Your task to perform on an android device: Do I have any events this weekend? Image 0: 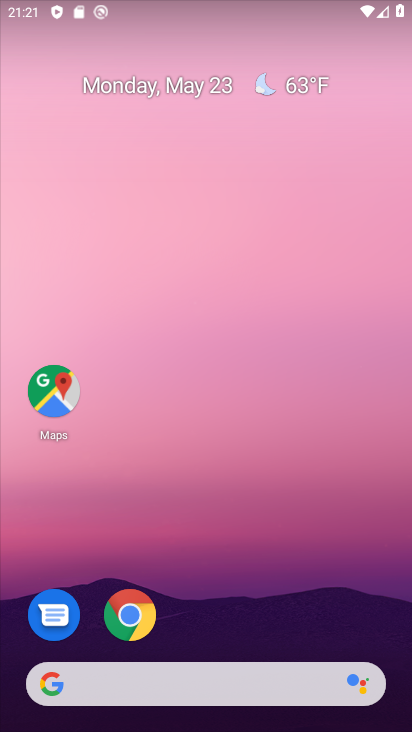
Step 0: drag from (226, 623) to (264, 126)
Your task to perform on an android device: Do I have any events this weekend? Image 1: 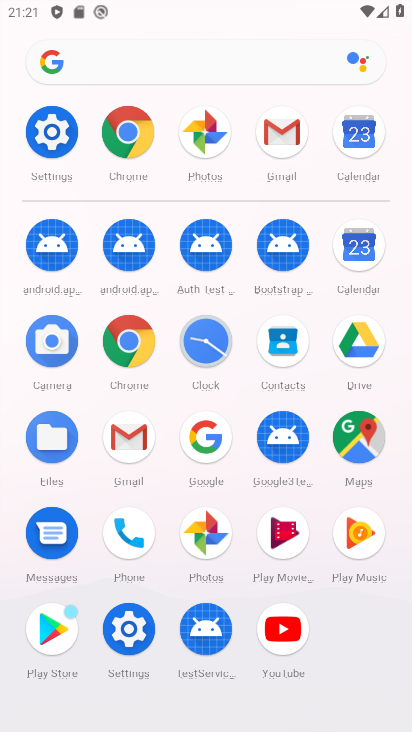
Step 1: click (367, 240)
Your task to perform on an android device: Do I have any events this weekend? Image 2: 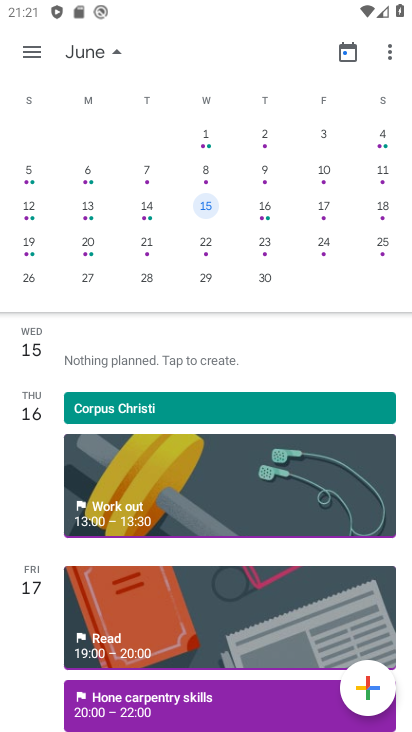
Step 2: drag from (37, 289) to (405, 275)
Your task to perform on an android device: Do I have any events this weekend? Image 3: 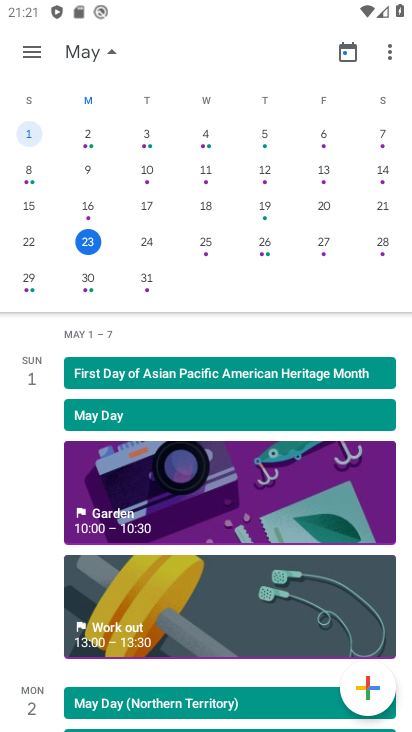
Step 3: click (202, 246)
Your task to perform on an android device: Do I have any events this weekend? Image 4: 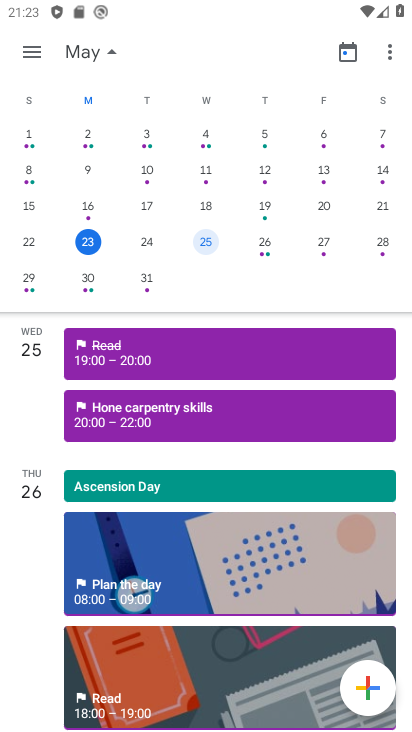
Step 4: task complete